Your task to perform on an android device: change the clock display to analog Image 0: 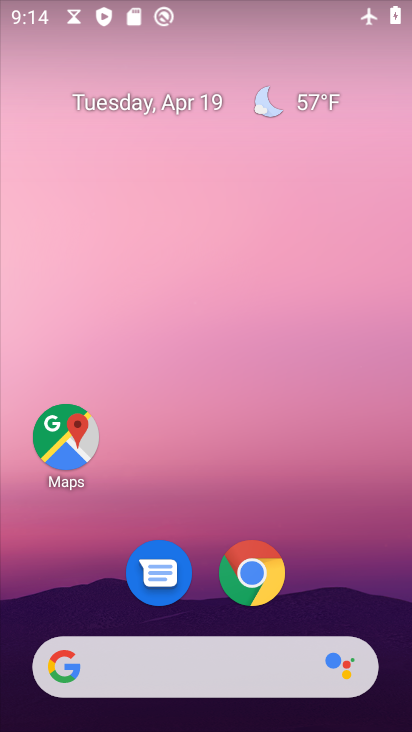
Step 0: drag from (344, 606) to (333, 10)
Your task to perform on an android device: change the clock display to analog Image 1: 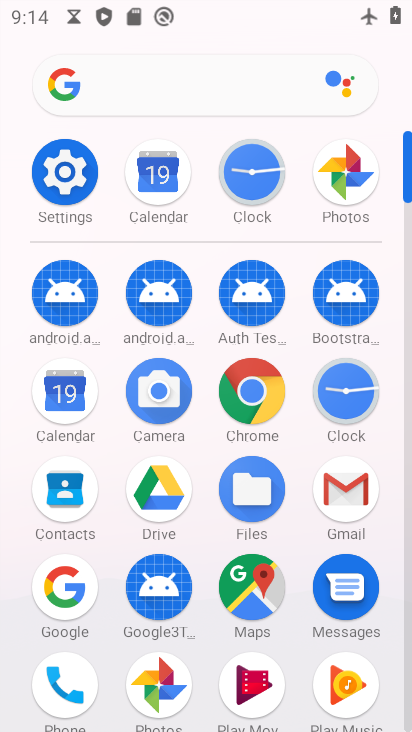
Step 1: click (343, 371)
Your task to perform on an android device: change the clock display to analog Image 2: 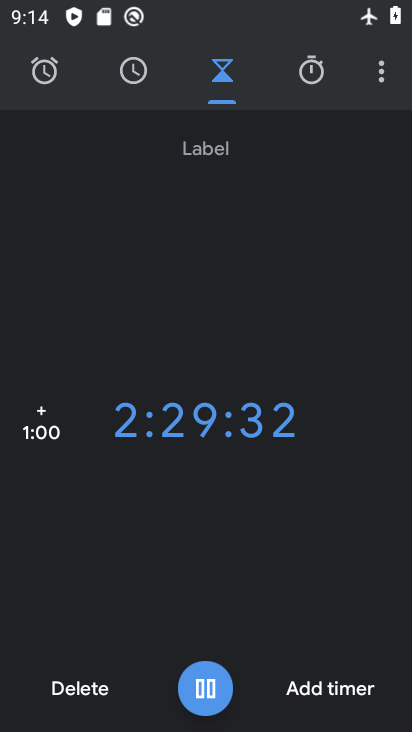
Step 2: click (382, 70)
Your task to perform on an android device: change the clock display to analog Image 3: 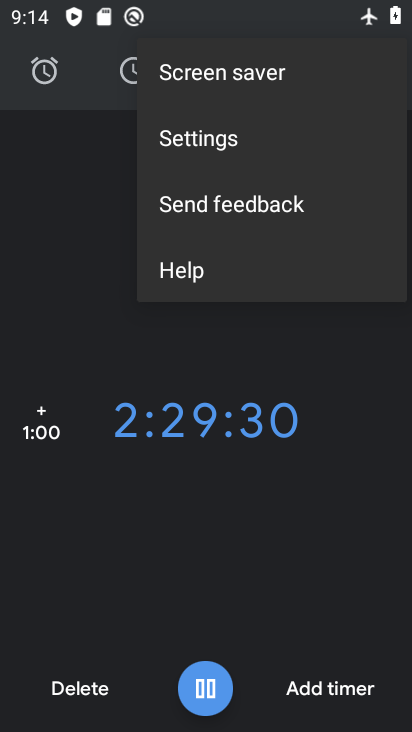
Step 3: click (206, 138)
Your task to perform on an android device: change the clock display to analog Image 4: 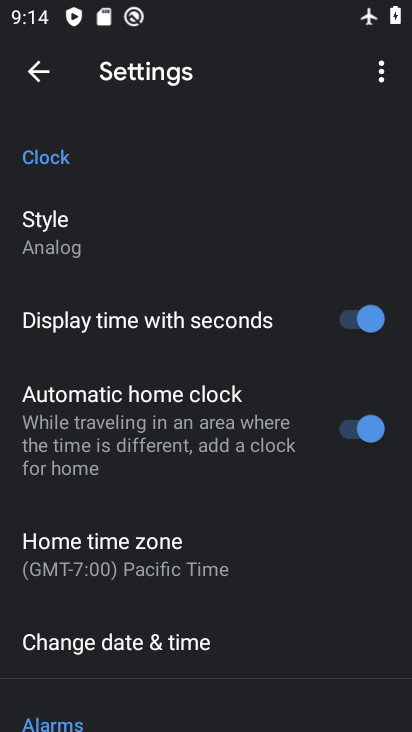
Step 4: click (36, 233)
Your task to perform on an android device: change the clock display to analog Image 5: 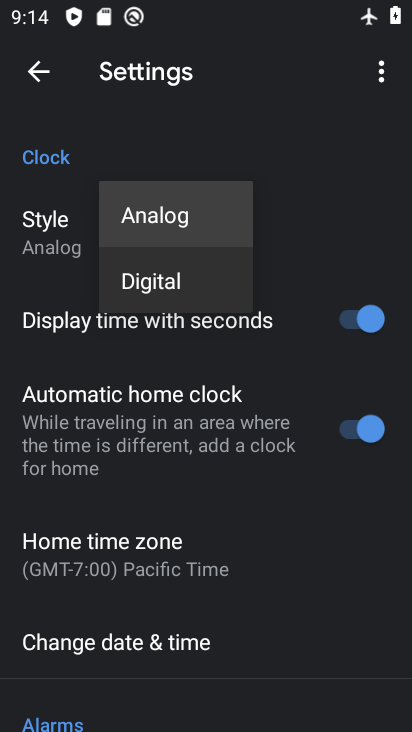
Step 5: click (184, 273)
Your task to perform on an android device: change the clock display to analog Image 6: 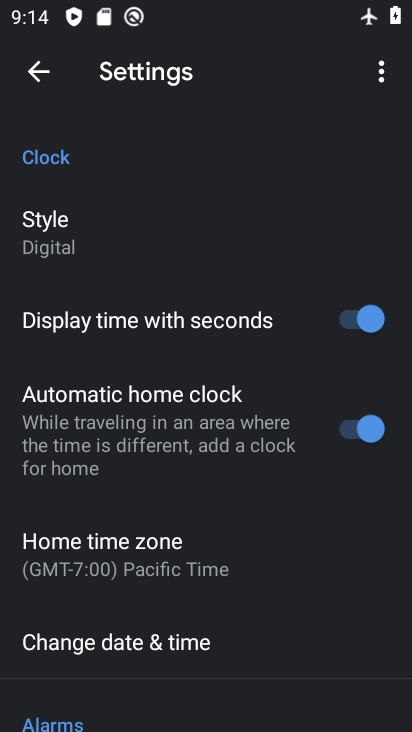
Step 6: task complete